Your task to perform on an android device: make emails show in primary in the gmail app Image 0: 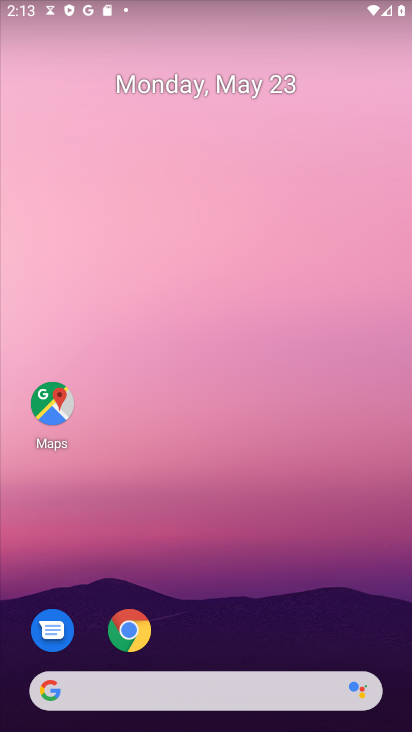
Step 0: drag from (288, 472) to (274, 138)
Your task to perform on an android device: make emails show in primary in the gmail app Image 1: 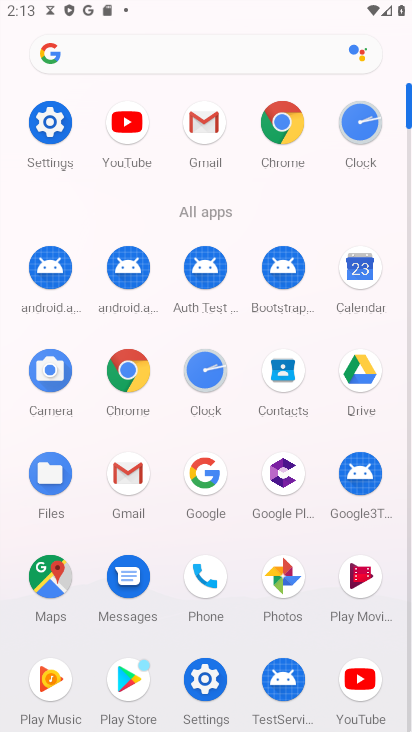
Step 1: click (191, 114)
Your task to perform on an android device: make emails show in primary in the gmail app Image 2: 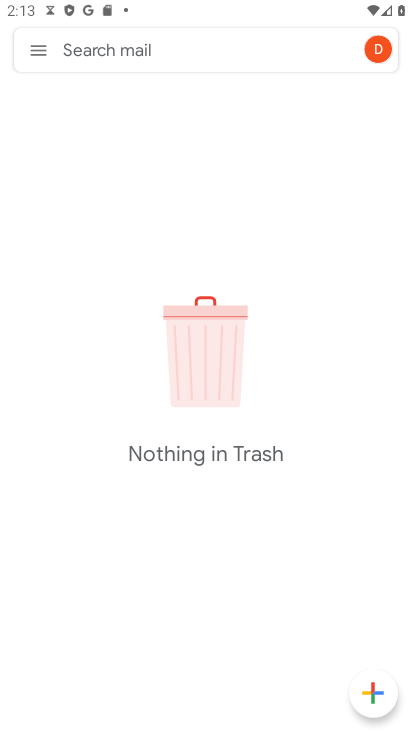
Step 2: click (45, 49)
Your task to perform on an android device: make emails show in primary in the gmail app Image 3: 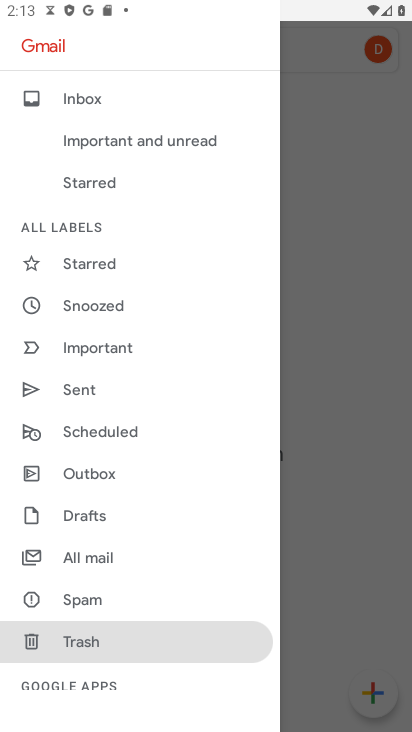
Step 3: drag from (78, 645) to (72, 301)
Your task to perform on an android device: make emails show in primary in the gmail app Image 4: 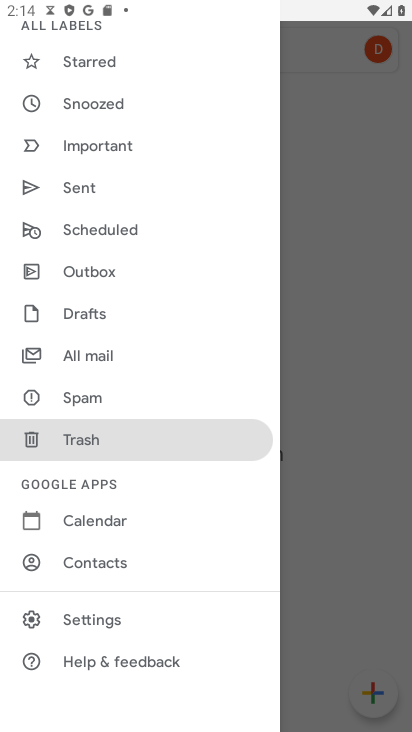
Step 4: click (82, 624)
Your task to perform on an android device: make emails show in primary in the gmail app Image 5: 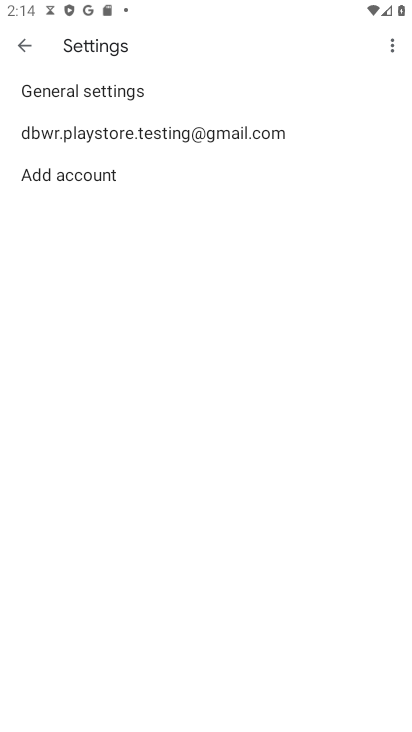
Step 5: click (75, 137)
Your task to perform on an android device: make emails show in primary in the gmail app Image 6: 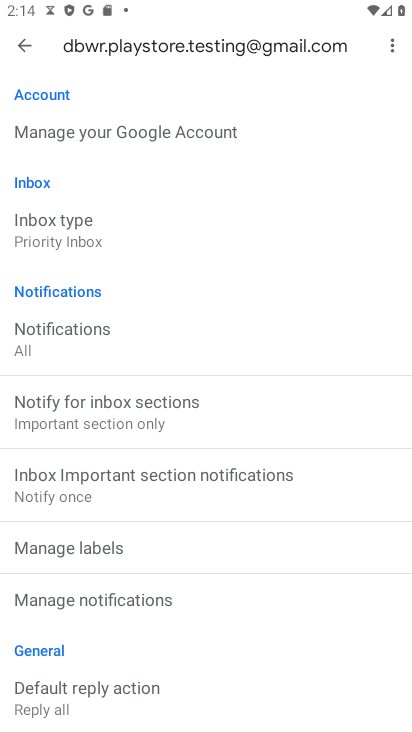
Step 6: click (53, 249)
Your task to perform on an android device: make emails show in primary in the gmail app Image 7: 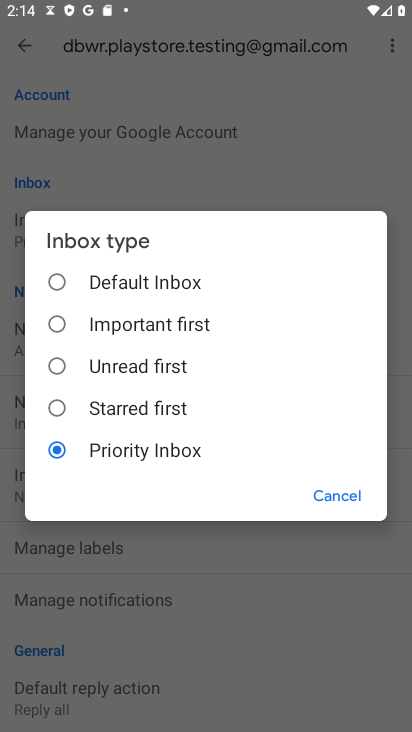
Step 7: click (79, 273)
Your task to perform on an android device: make emails show in primary in the gmail app Image 8: 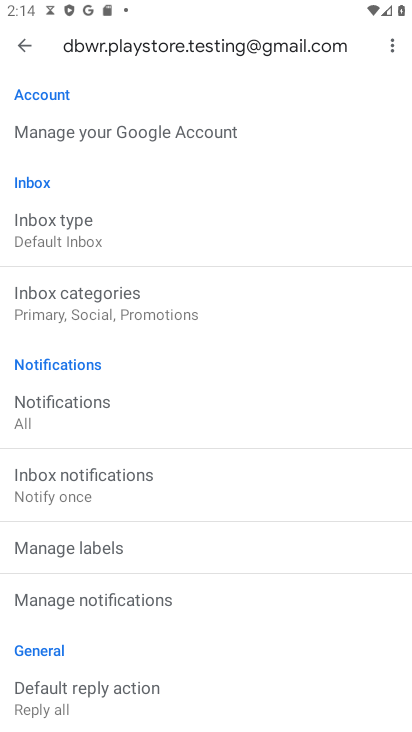
Step 8: task complete